Your task to perform on an android device: Open Google Maps Image 0: 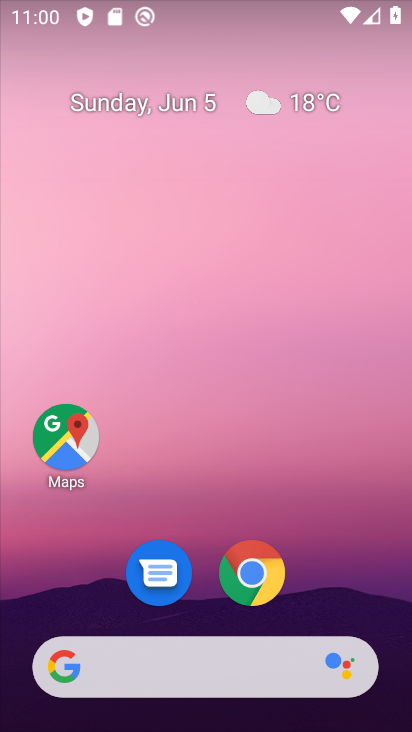
Step 0: drag from (230, 621) to (281, 194)
Your task to perform on an android device: Open Google Maps Image 1: 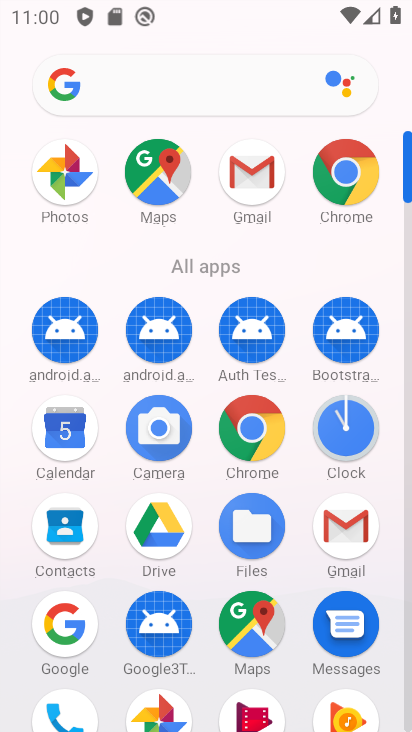
Step 1: drag from (208, 269) to (227, 39)
Your task to perform on an android device: Open Google Maps Image 2: 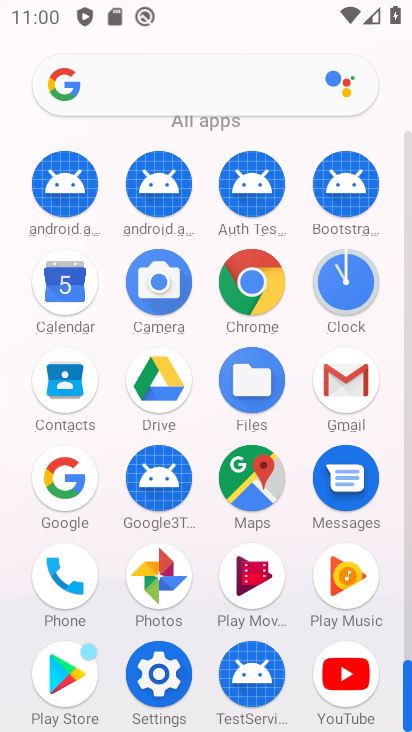
Step 2: click (252, 488)
Your task to perform on an android device: Open Google Maps Image 3: 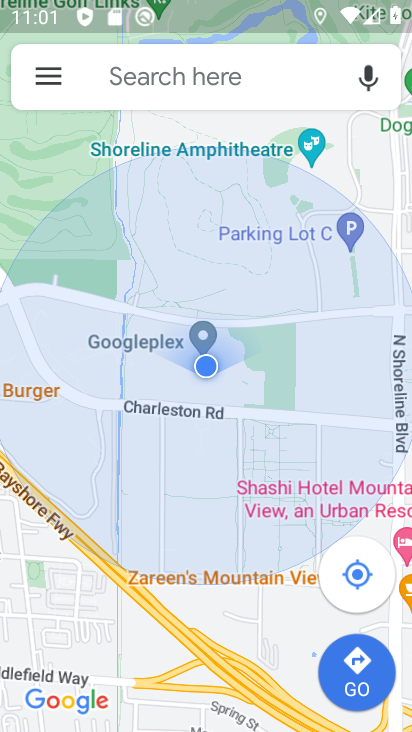
Step 3: task complete